Your task to perform on an android device: open app "Move to iOS" (install if not already installed) and go to login screen Image 0: 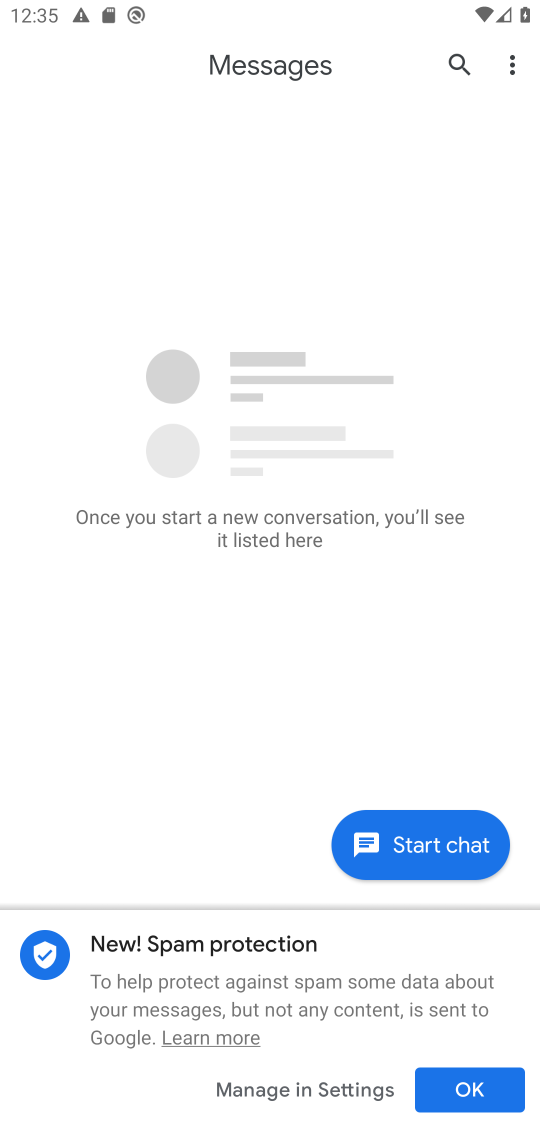
Step 0: press home button
Your task to perform on an android device: open app "Move to iOS" (install if not already installed) and go to login screen Image 1: 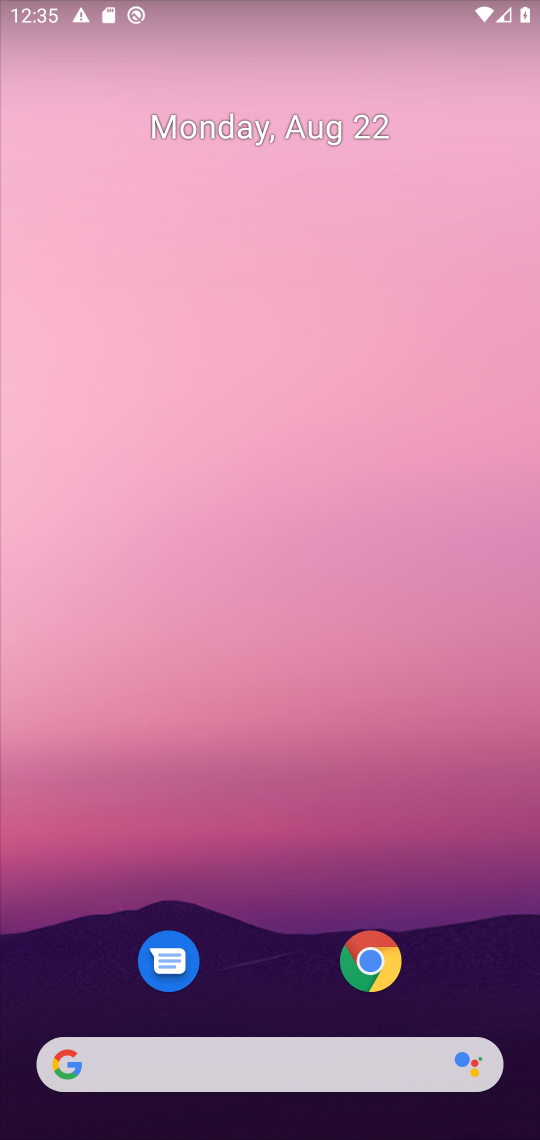
Step 1: drag from (473, 845) to (481, 106)
Your task to perform on an android device: open app "Move to iOS" (install if not already installed) and go to login screen Image 2: 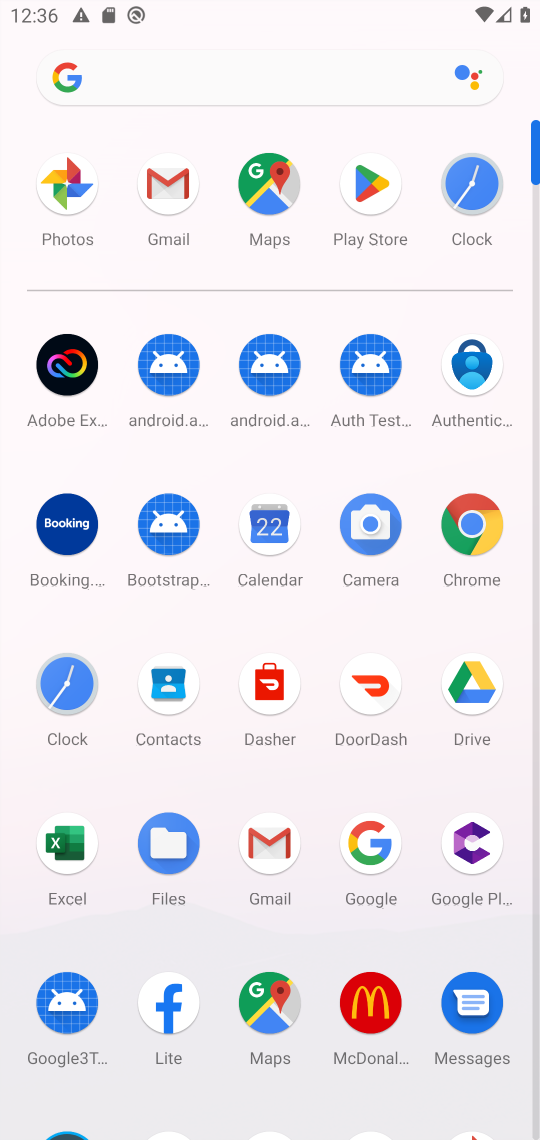
Step 2: click (383, 194)
Your task to perform on an android device: open app "Move to iOS" (install if not already installed) and go to login screen Image 3: 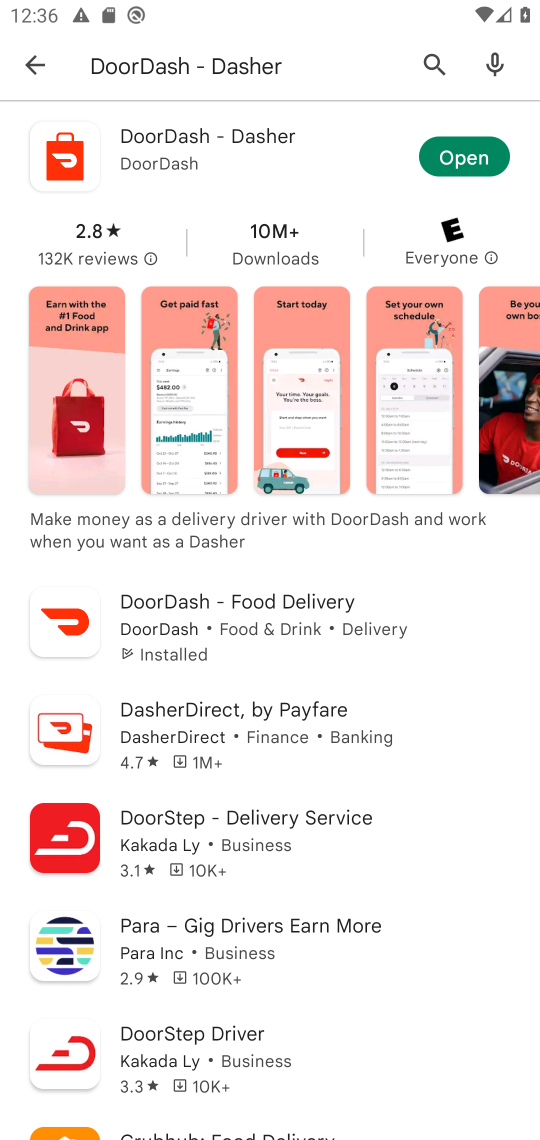
Step 3: press back button
Your task to perform on an android device: open app "Move to iOS" (install if not already installed) and go to login screen Image 4: 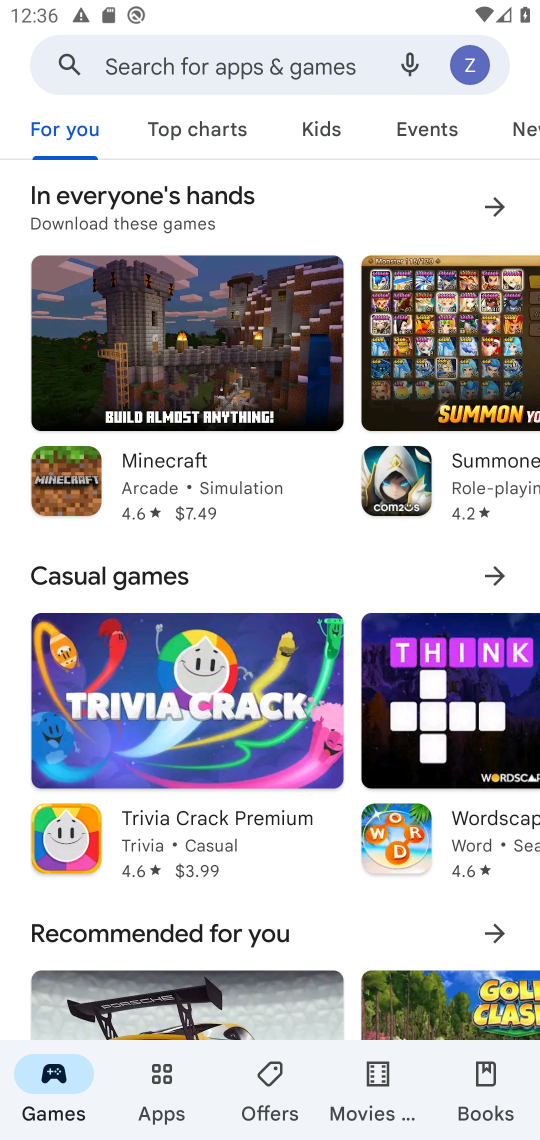
Step 4: click (225, 75)
Your task to perform on an android device: open app "Move to iOS" (install if not already installed) and go to login screen Image 5: 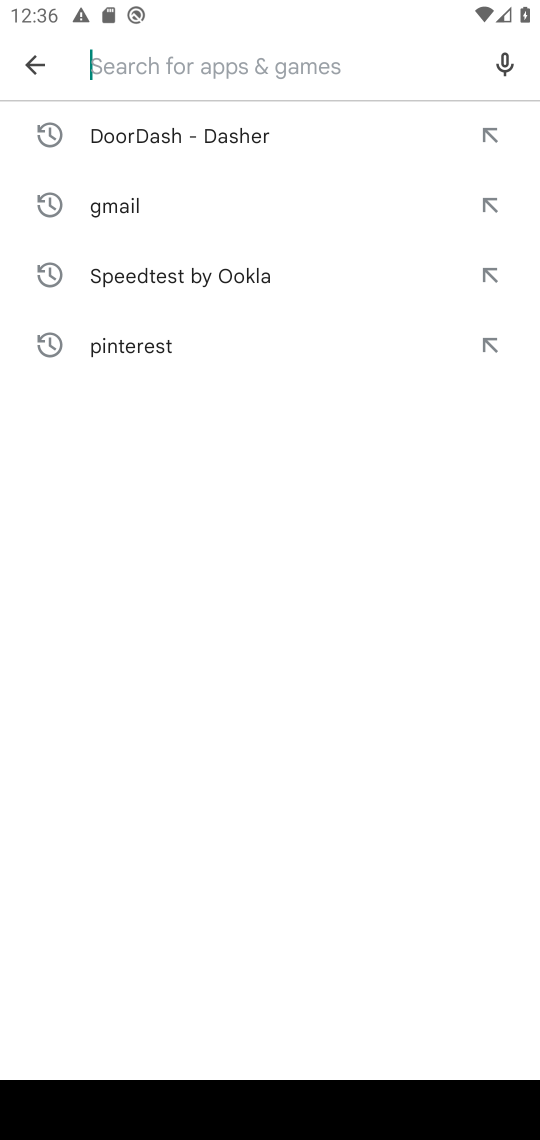
Step 5: type "Move to iOS"
Your task to perform on an android device: open app "Move to iOS" (install if not already installed) and go to login screen Image 6: 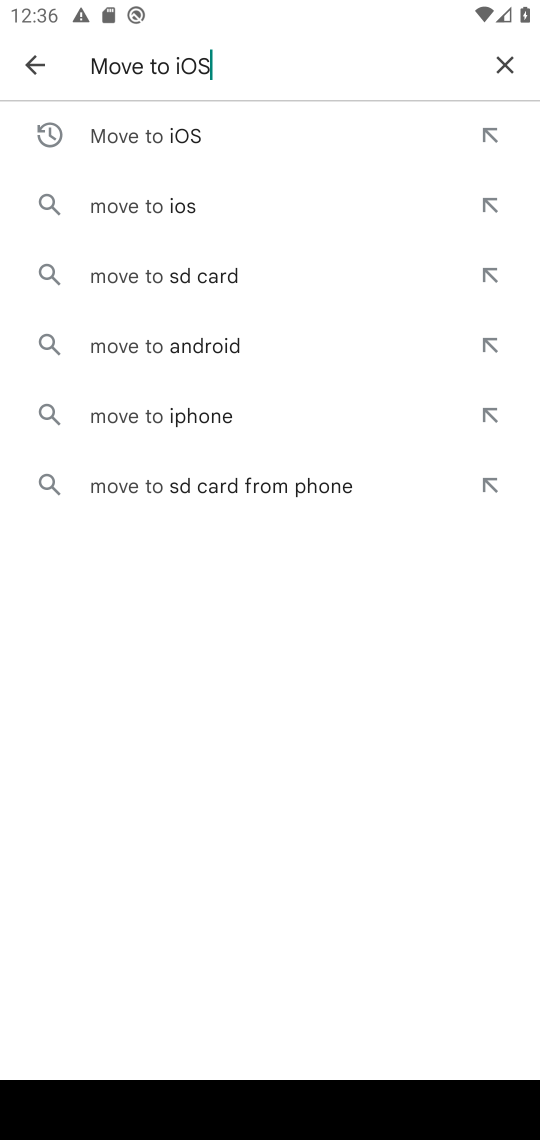
Step 6: press enter
Your task to perform on an android device: open app "Move to iOS" (install if not already installed) and go to login screen Image 7: 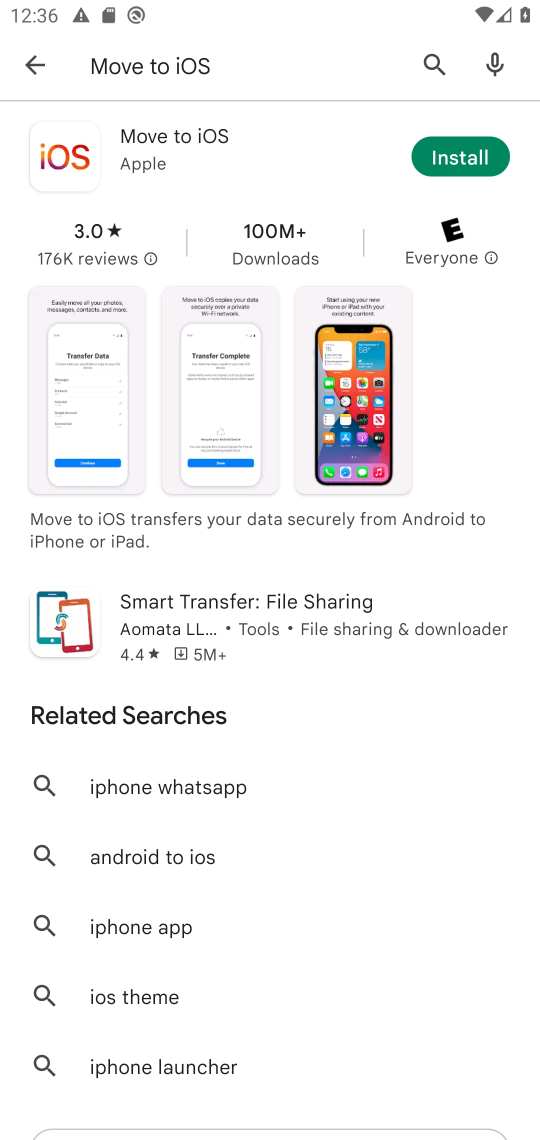
Step 7: click (475, 149)
Your task to perform on an android device: open app "Move to iOS" (install if not already installed) and go to login screen Image 8: 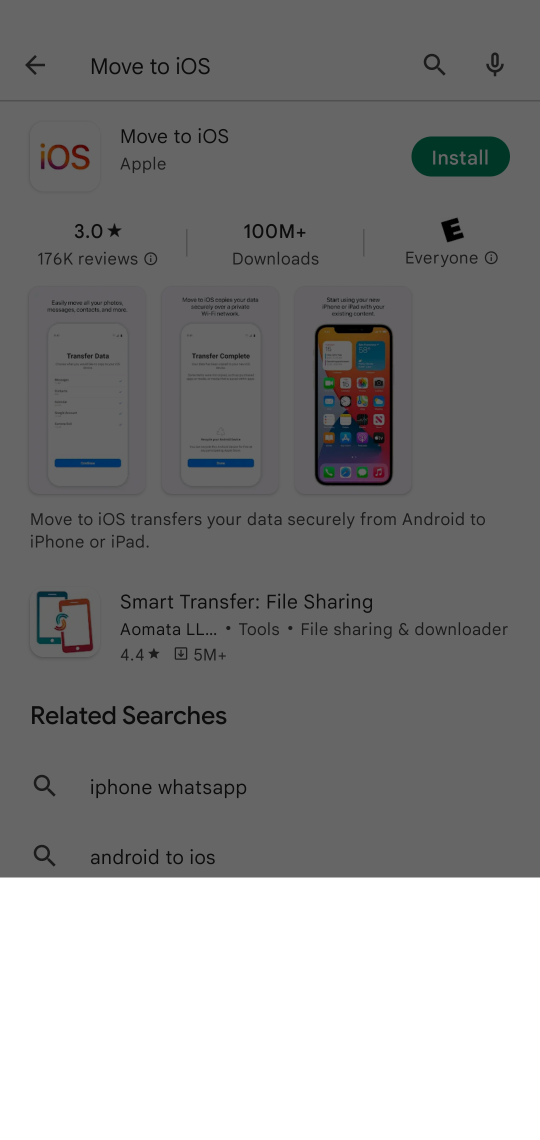
Step 8: task complete